Your task to perform on an android device: Show me popular games on the Play Store Image 0: 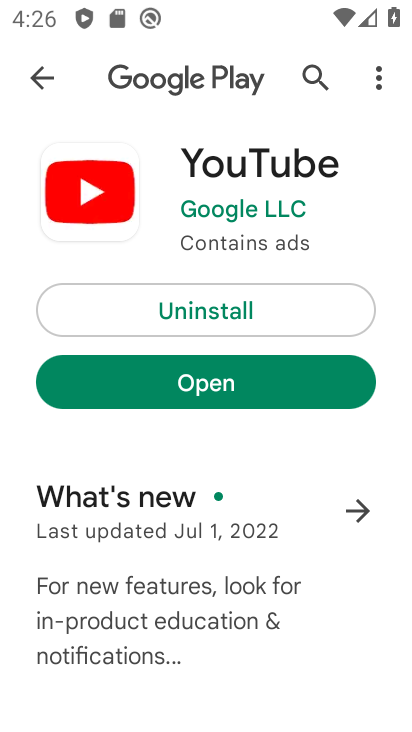
Step 0: press home button
Your task to perform on an android device: Show me popular games on the Play Store Image 1: 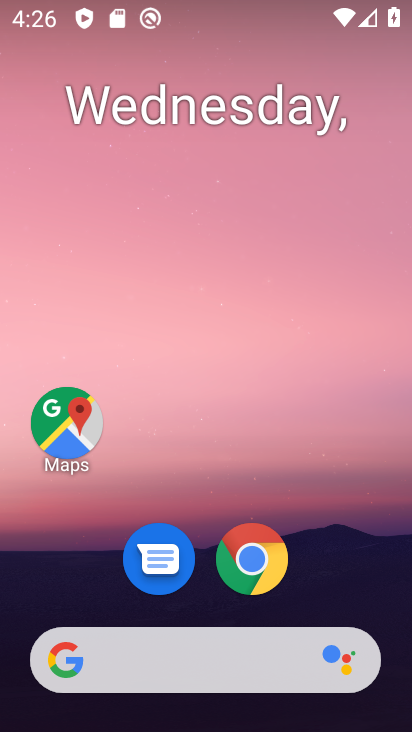
Step 1: drag from (364, 589) to (259, 176)
Your task to perform on an android device: Show me popular games on the Play Store Image 2: 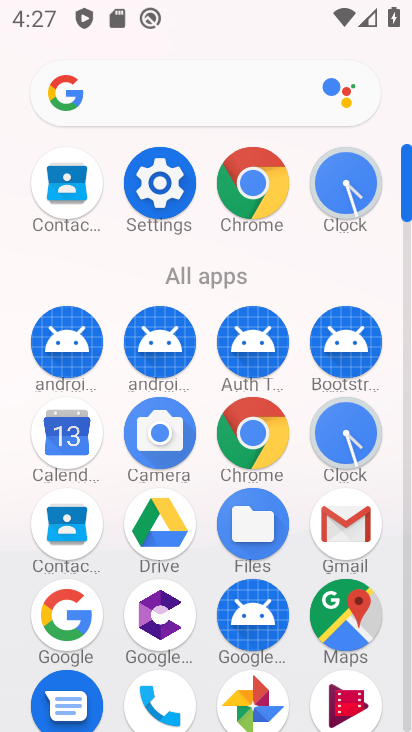
Step 2: click (408, 690)
Your task to perform on an android device: Show me popular games on the Play Store Image 3: 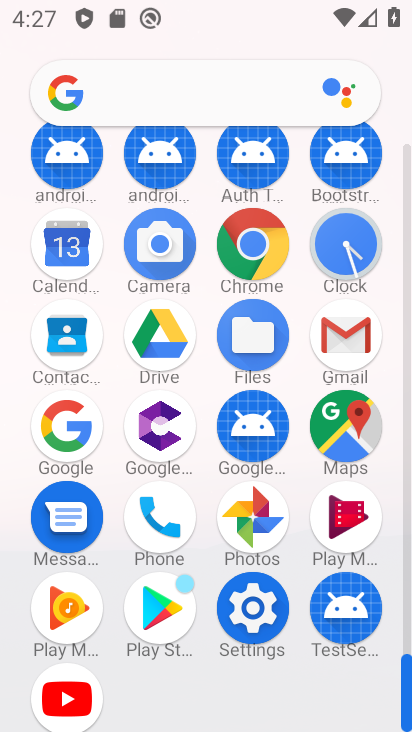
Step 3: click (169, 606)
Your task to perform on an android device: Show me popular games on the Play Store Image 4: 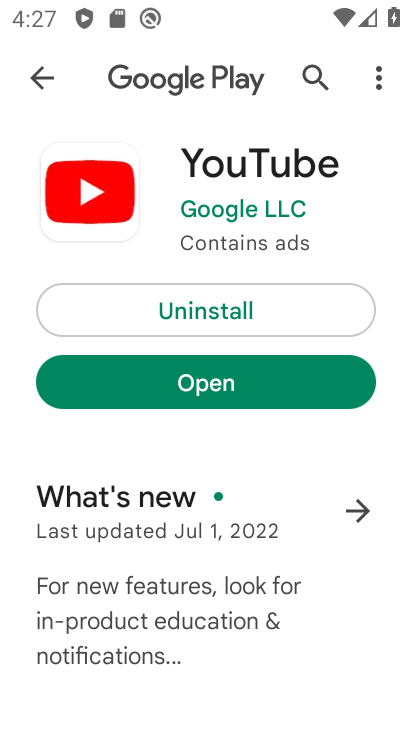
Step 4: click (43, 78)
Your task to perform on an android device: Show me popular games on the Play Store Image 5: 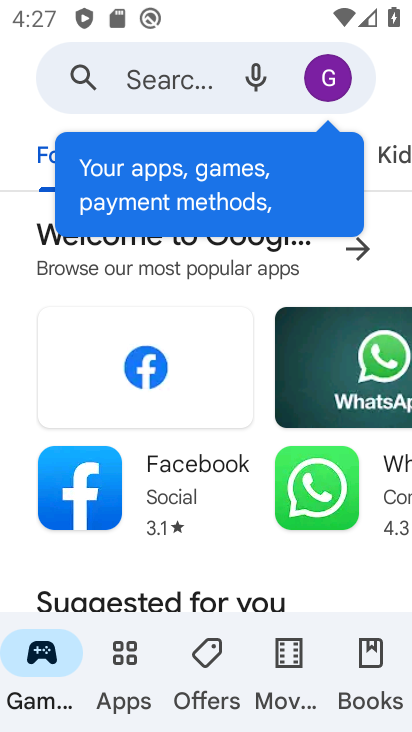
Step 5: drag from (305, 592) to (247, 259)
Your task to perform on an android device: Show me popular games on the Play Store Image 6: 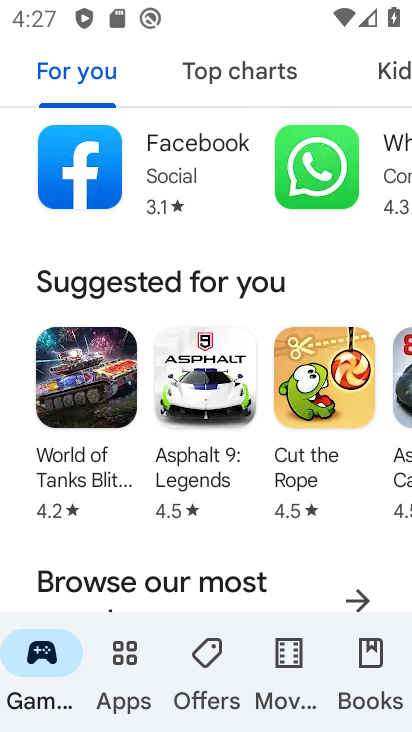
Step 6: drag from (345, 532) to (293, 168)
Your task to perform on an android device: Show me popular games on the Play Store Image 7: 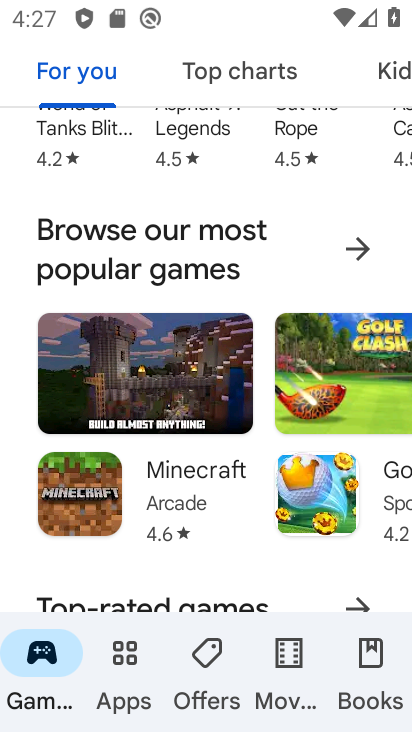
Step 7: click (308, 233)
Your task to perform on an android device: Show me popular games on the Play Store Image 8: 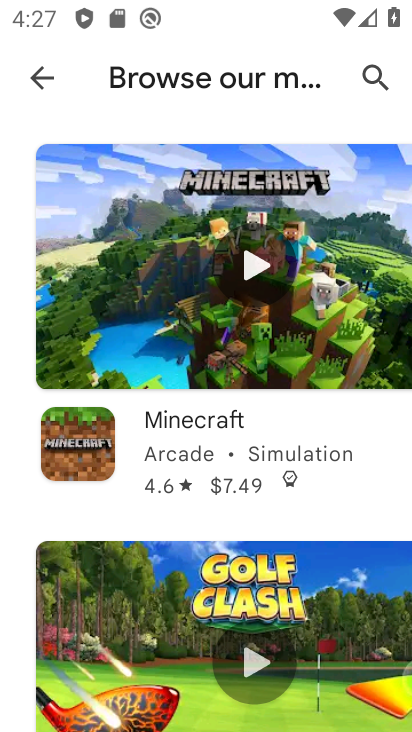
Step 8: task complete